Your task to perform on an android device: read, delete, or share a saved page in the chrome app Image 0: 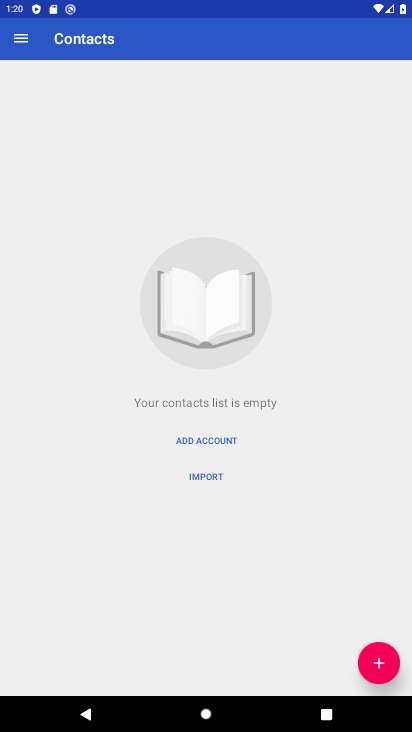
Step 0: press home button
Your task to perform on an android device: read, delete, or share a saved page in the chrome app Image 1: 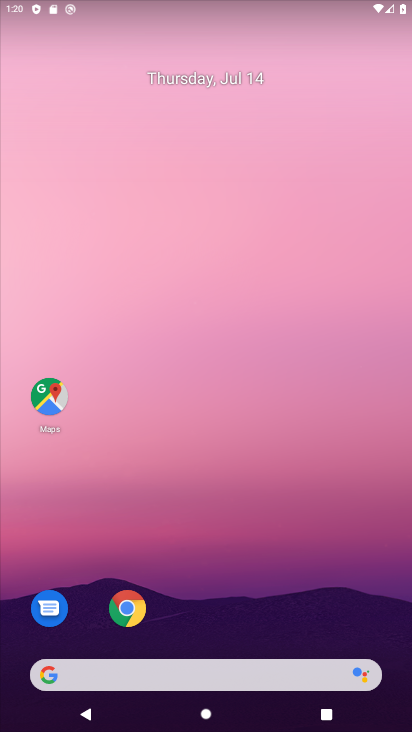
Step 1: click (138, 619)
Your task to perform on an android device: read, delete, or share a saved page in the chrome app Image 2: 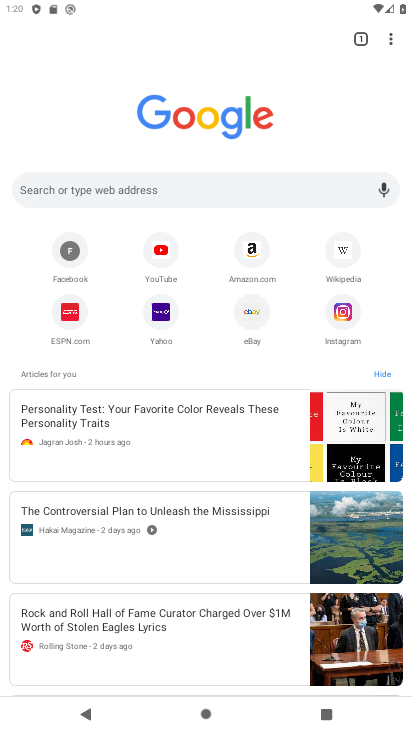
Step 2: click (393, 45)
Your task to perform on an android device: read, delete, or share a saved page in the chrome app Image 3: 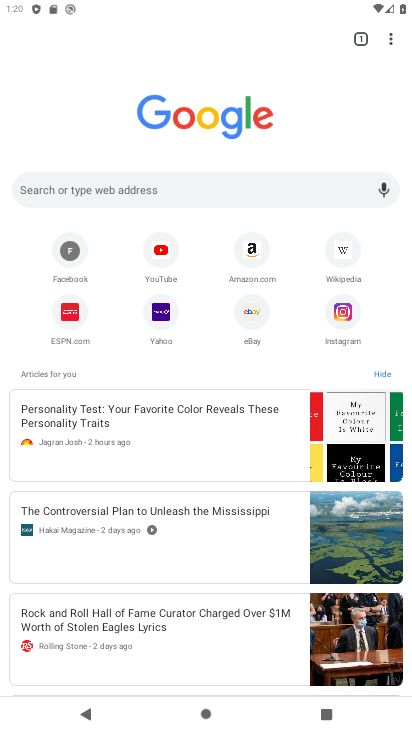
Step 3: click (393, 37)
Your task to perform on an android device: read, delete, or share a saved page in the chrome app Image 4: 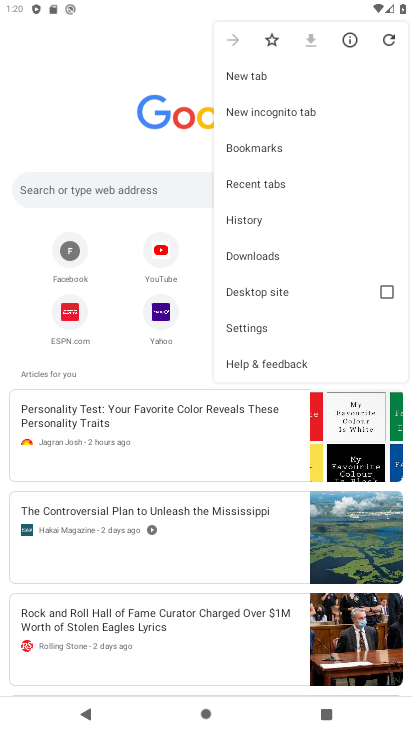
Step 4: click (249, 261)
Your task to perform on an android device: read, delete, or share a saved page in the chrome app Image 5: 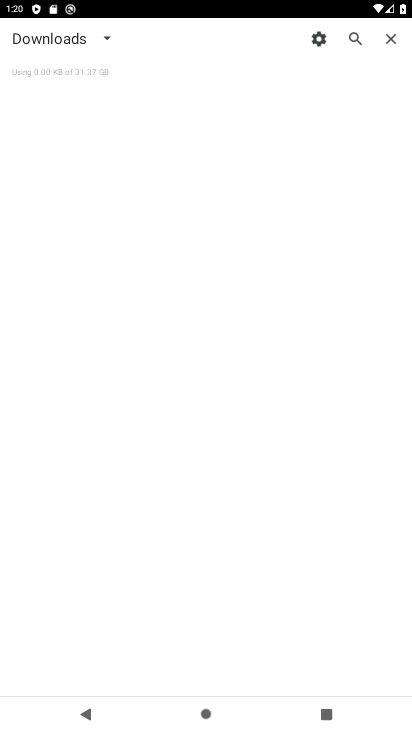
Step 5: task complete